Your task to perform on an android device: What's on my calendar today? Image 0: 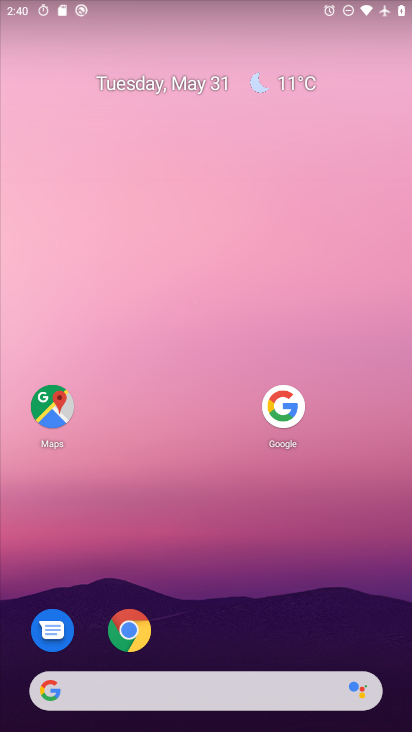
Step 0: press home button
Your task to perform on an android device: What's on my calendar today? Image 1: 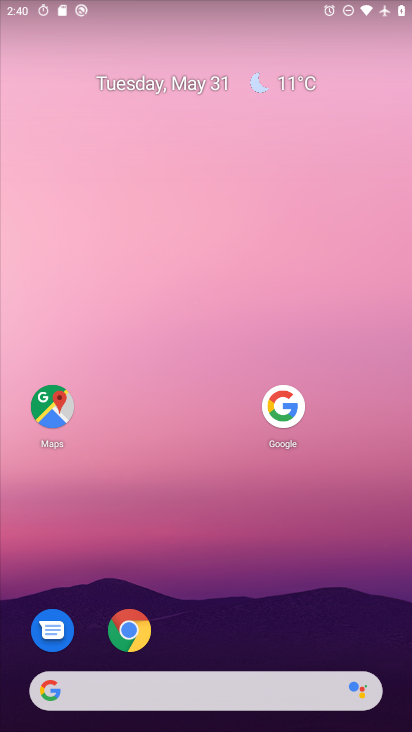
Step 1: drag from (162, 691) to (327, 165)
Your task to perform on an android device: What's on my calendar today? Image 2: 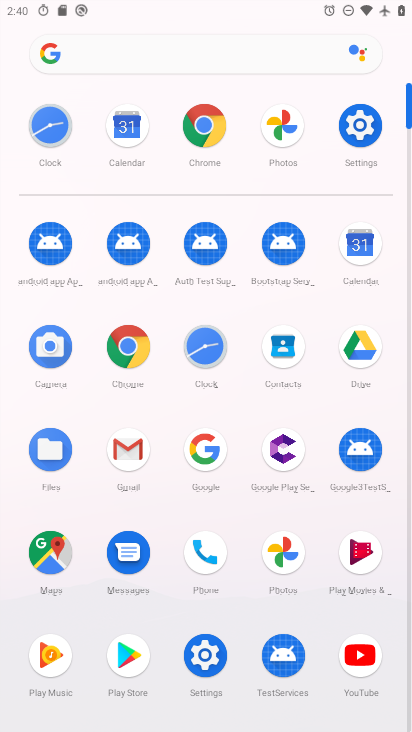
Step 2: click (354, 245)
Your task to perform on an android device: What's on my calendar today? Image 3: 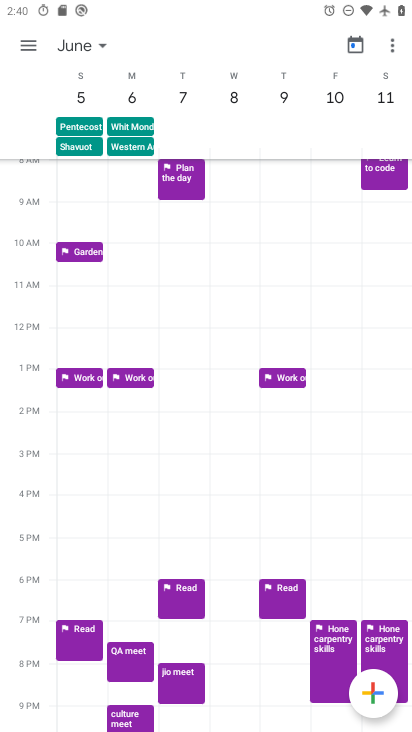
Step 3: click (82, 55)
Your task to perform on an android device: What's on my calendar today? Image 4: 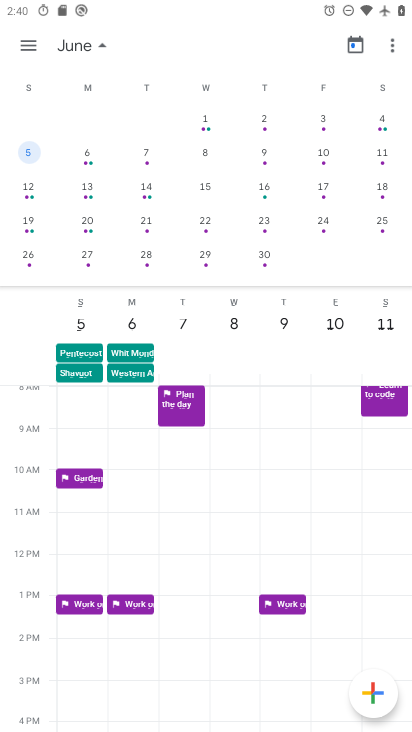
Step 4: drag from (106, 208) to (412, 196)
Your task to perform on an android device: What's on my calendar today? Image 5: 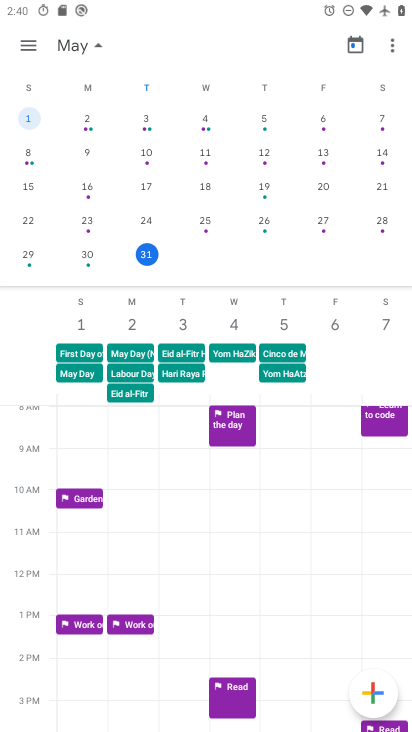
Step 5: click (149, 259)
Your task to perform on an android device: What's on my calendar today? Image 6: 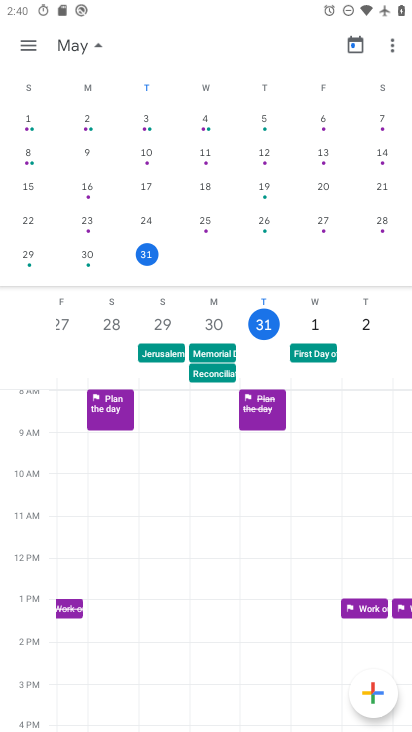
Step 6: click (28, 44)
Your task to perform on an android device: What's on my calendar today? Image 7: 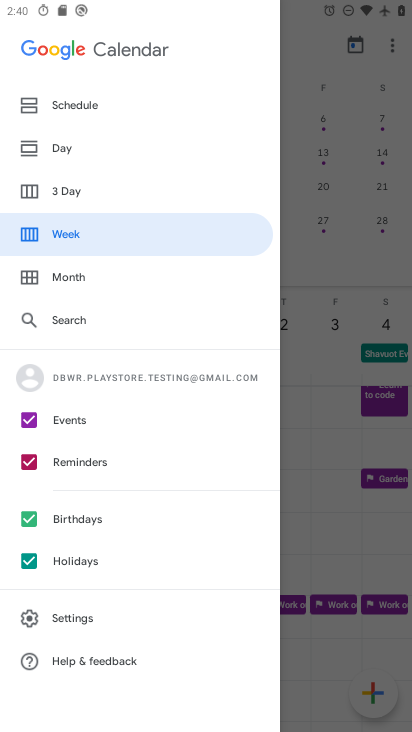
Step 7: click (84, 109)
Your task to perform on an android device: What's on my calendar today? Image 8: 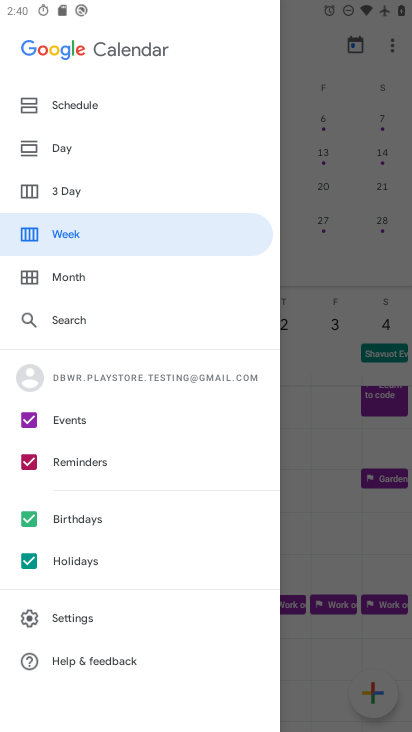
Step 8: click (58, 98)
Your task to perform on an android device: What's on my calendar today? Image 9: 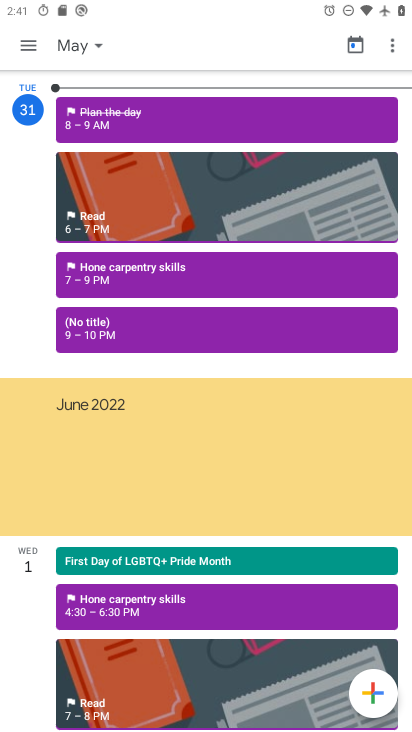
Step 9: task complete